Your task to perform on an android device: check battery use Image 0: 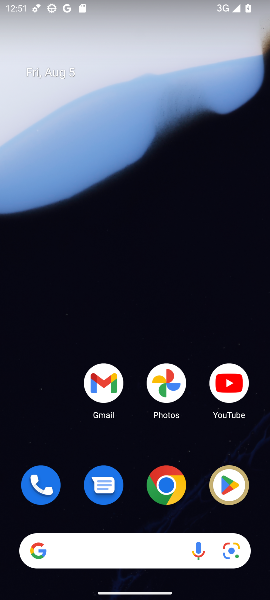
Step 0: drag from (58, 408) to (89, 85)
Your task to perform on an android device: check battery use Image 1: 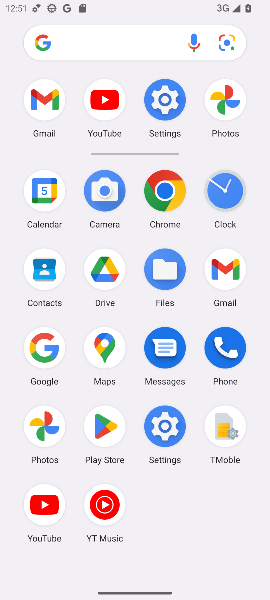
Step 1: click (166, 98)
Your task to perform on an android device: check battery use Image 2: 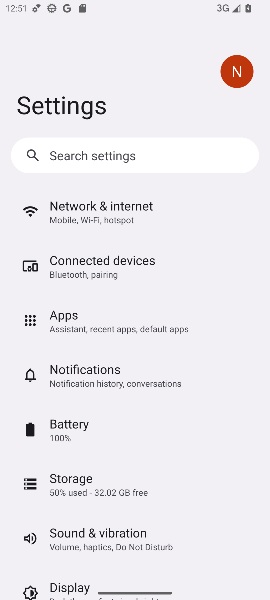
Step 2: click (64, 424)
Your task to perform on an android device: check battery use Image 3: 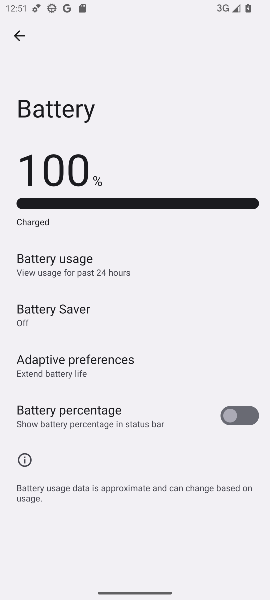
Step 3: task complete